Your task to perform on an android device: remove spam from my inbox in the gmail app Image 0: 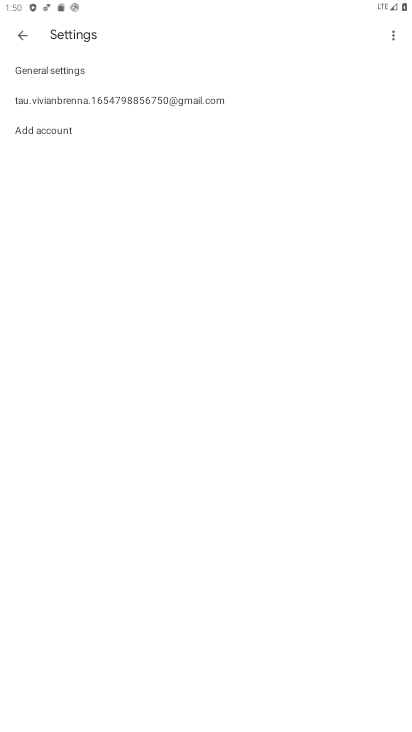
Step 0: press home button
Your task to perform on an android device: remove spam from my inbox in the gmail app Image 1: 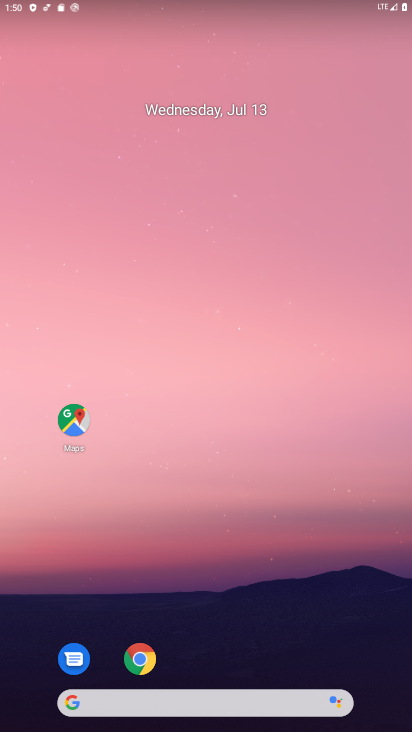
Step 1: drag from (368, 679) to (332, 175)
Your task to perform on an android device: remove spam from my inbox in the gmail app Image 2: 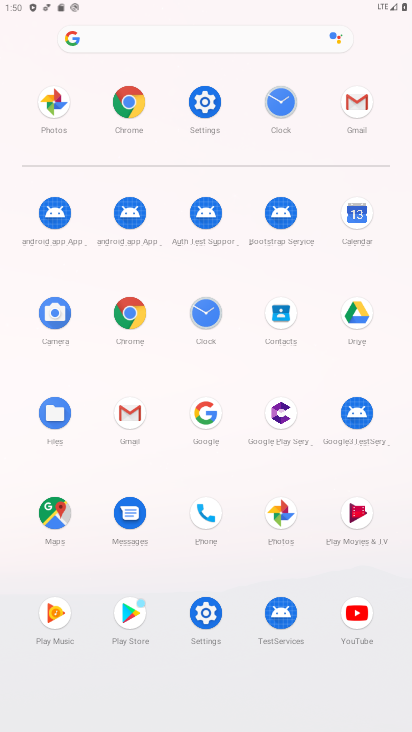
Step 2: click (131, 411)
Your task to perform on an android device: remove spam from my inbox in the gmail app Image 3: 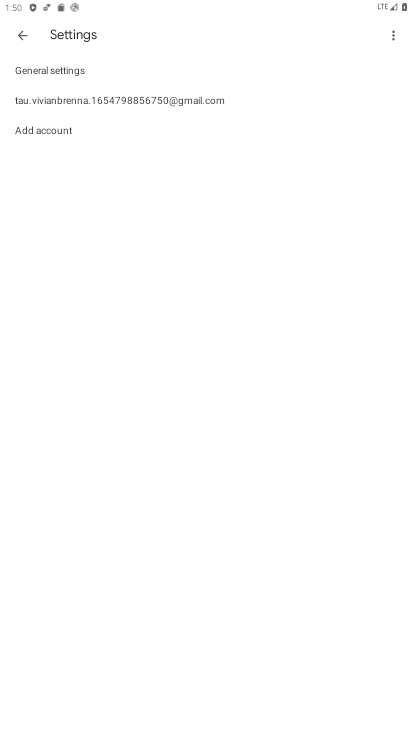
Step 3: press back button
Your task to perform on an android device: remove spam from my inbox in the gmail app Image 4: 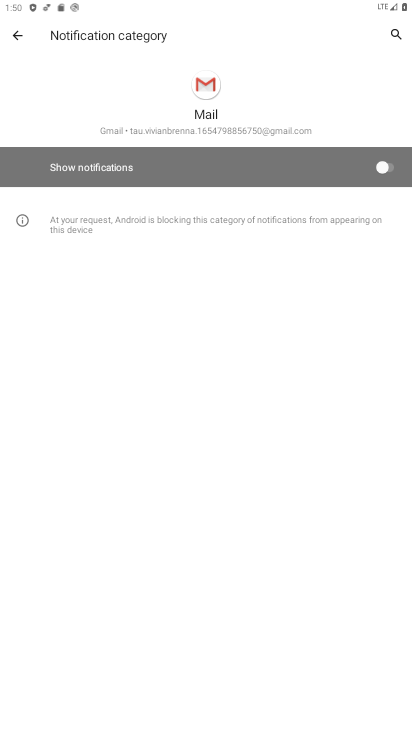
Step 4: press back button
Your task to perform on an android device: remove spam from my inbox in the gmail app Image 5: 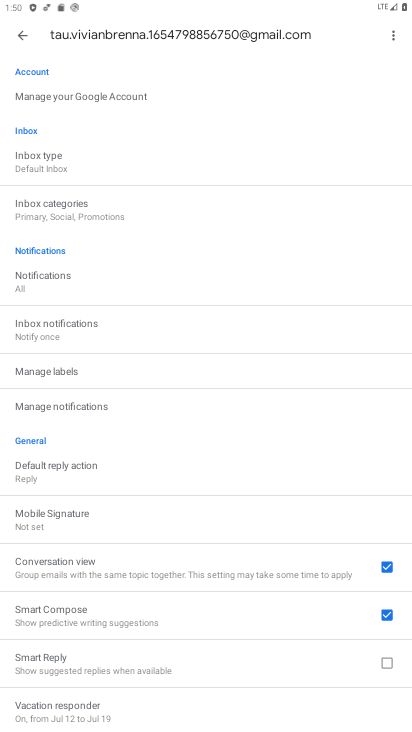
Step 5: press back button
Your task to perform on an android device: remove spam from my inbox in the gmail app Image 6: 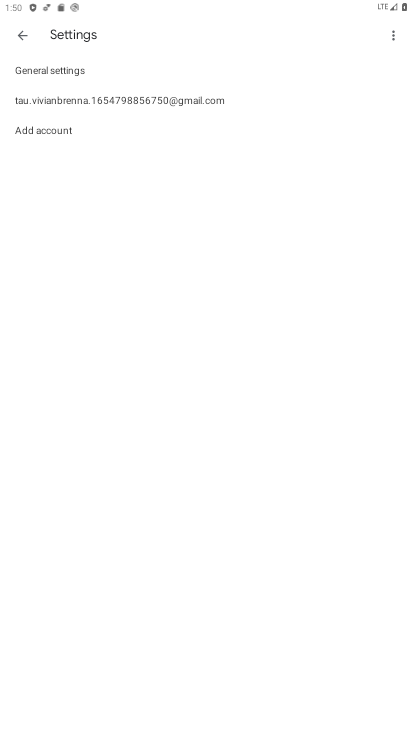
Step 6: press back button
Your task to perform on an android device: remove spam from my inbox in the gmail app Image 7: 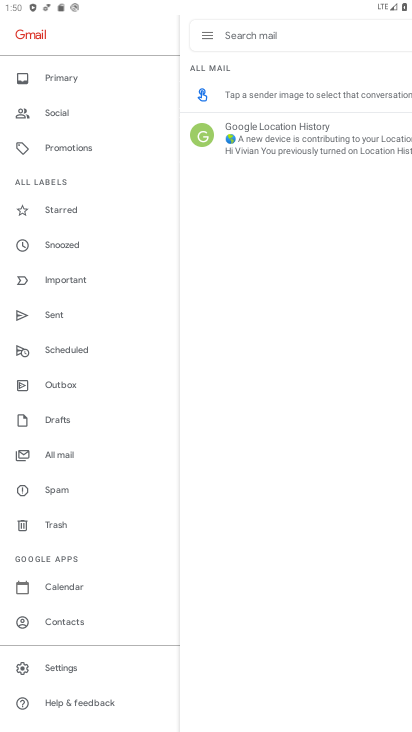
Step 7: click (51, 483)
Your task to perform on an android device: remove spam from my inbox in the gmail app Image 8: 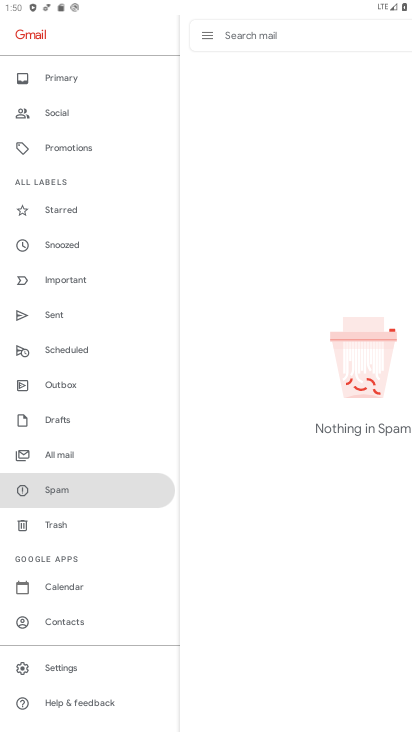
Step 8: task complete